Your task to perform on an android device: remove spam from my inbox in the gmail app Image 0: 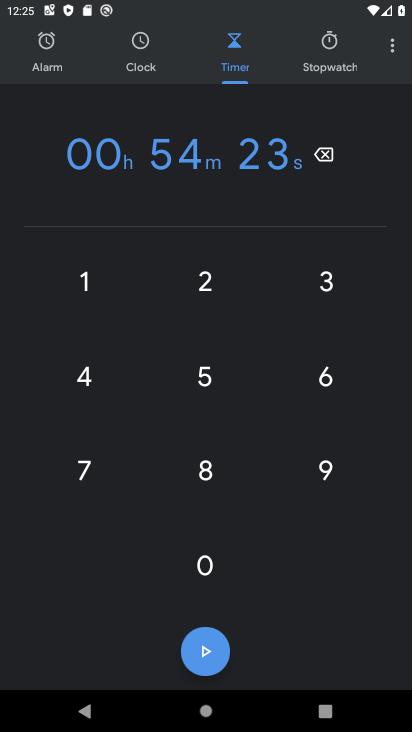
Step 0: press home button
Your task to perform on an android device: remove spam from my inbox in the gmail app Image 1: 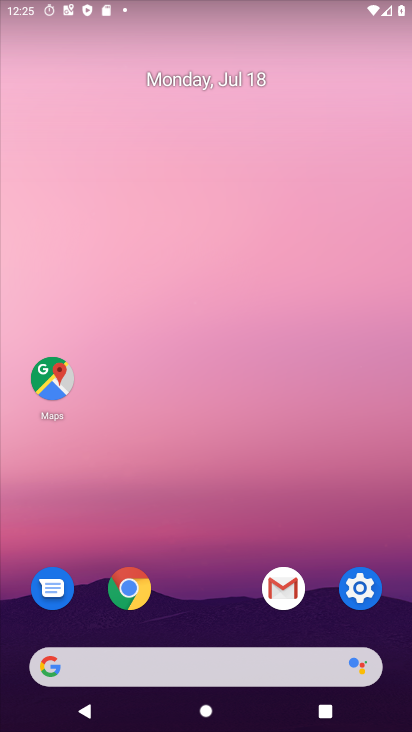
Step 1: click (256, 587)
Your task to perform on an android device: remove spam from my inbox in the gmail app Image 2: 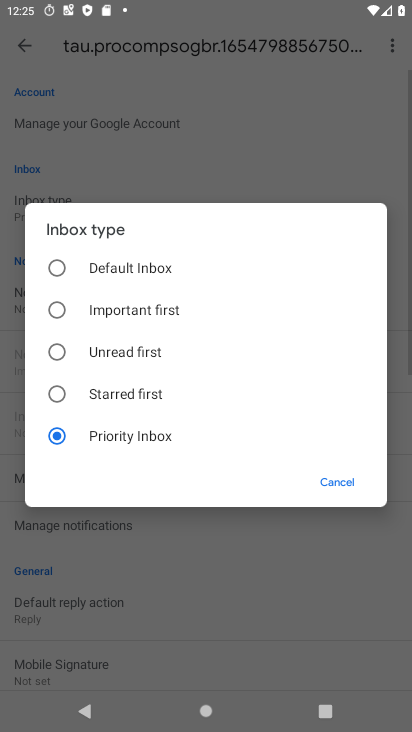
Step 2: click (130, 163)
Your task to perform on an android device: remove spam from my inbox in the gmail app Image 3: 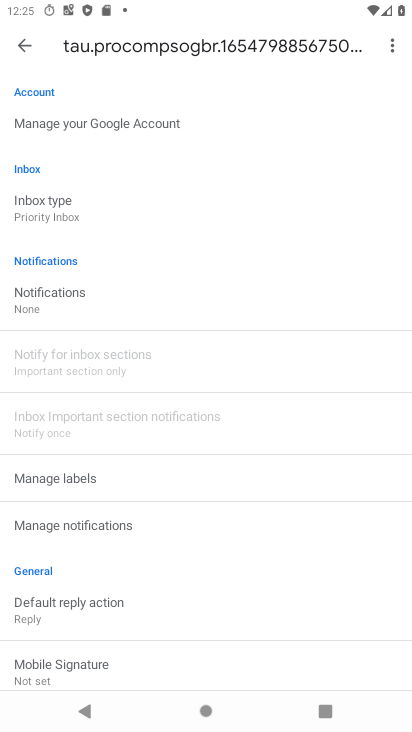
Step 3: click (20, 43)
Your task to perform on an android device: remove spam from my inbox in the gmail app Image 4: 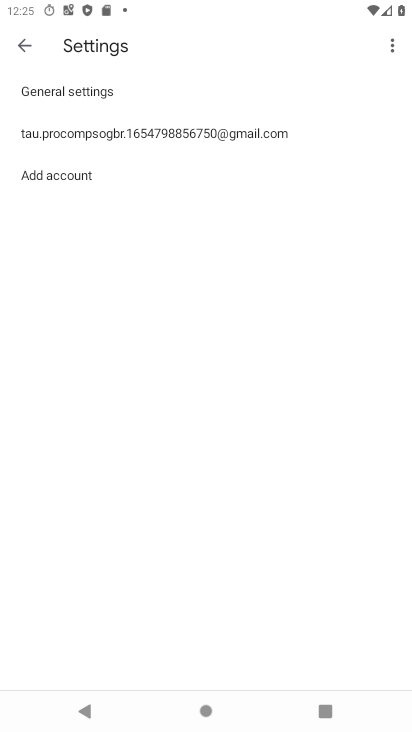
Step 4: click (20, 43)
Your task to perform on an android device: remove spam from my inbox in the gmail app Image 5: 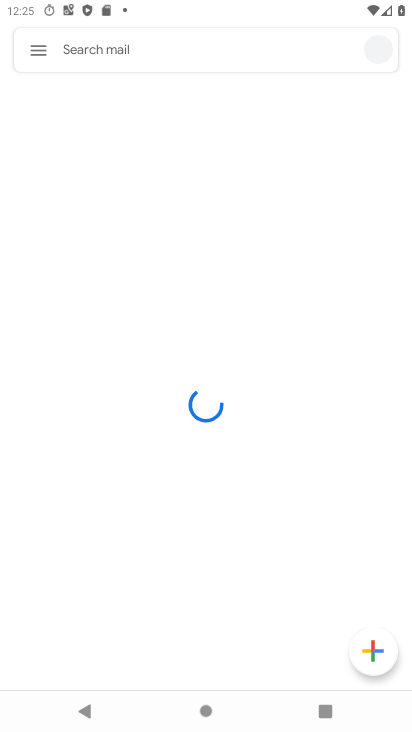
Step 5: click (24, 47)
Your task to perform on an android device: remove spam from my inbox in the gmail app Image 6: 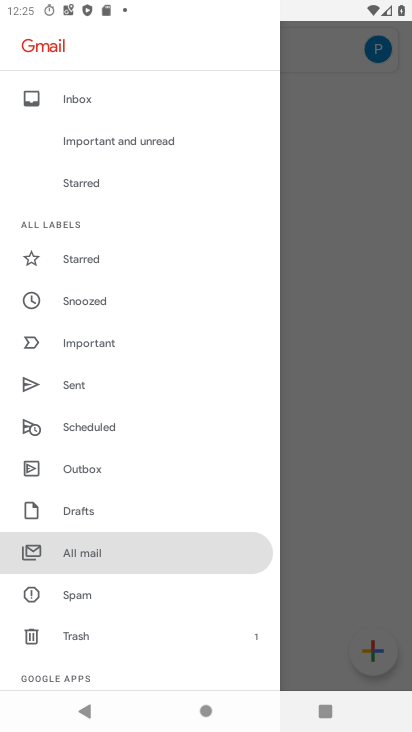
Step 6: click (118, 602)
Your task to perform on an android device: remove spam from my inbox in the gmail app Image 7: 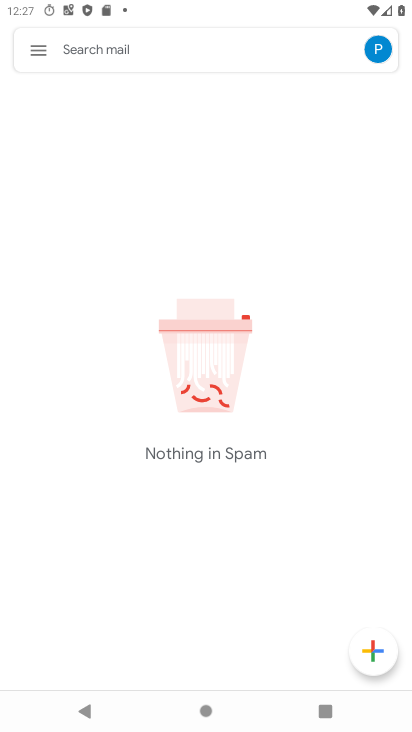
Step 7: task complete